Your task to perform on an android device: set the stopwatch Image 0: 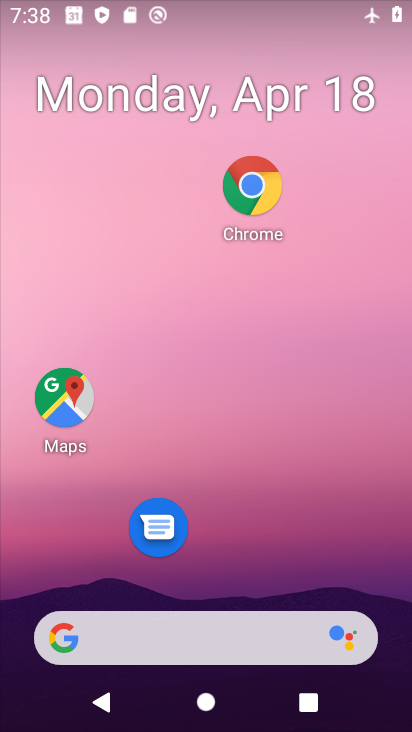
Step 0: click (203, 196)
Your task to perform on an android device: set the stopwatch Image 1: 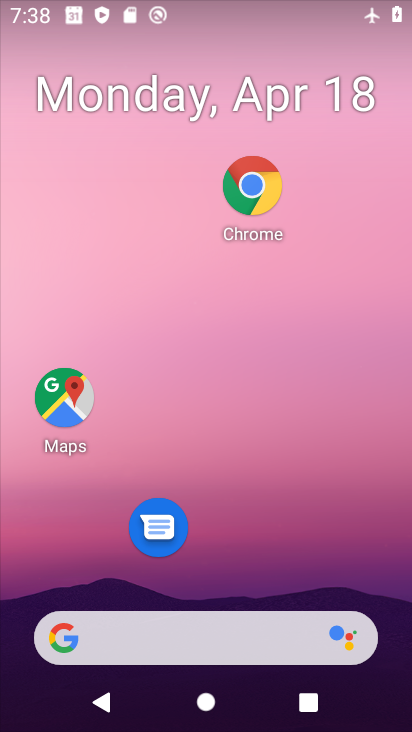
Step 1: drag from (214, 522) to (259, 203)
Your task to perform on an android device: set the stopwatch Image 2: 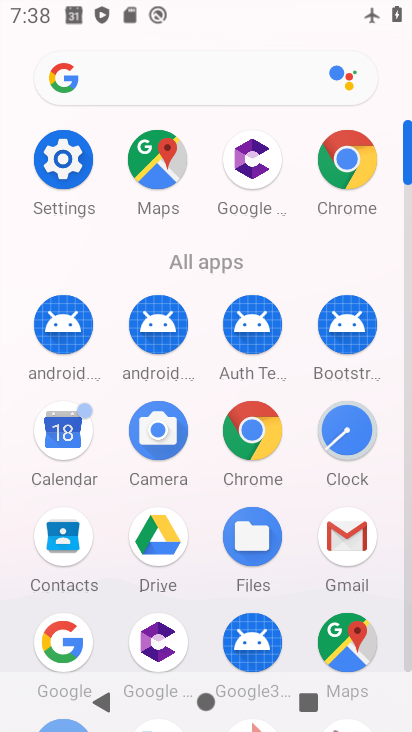
Step 2: click (357, 440)
Your task to perform on an android device: set the stopwatch Image 3: 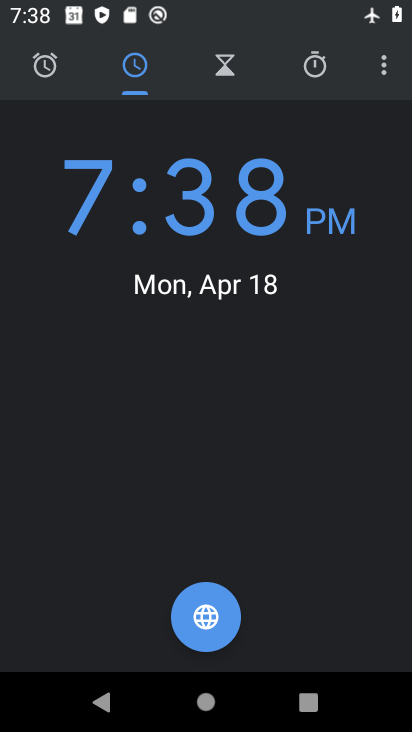
Step 3: click (302, 67)
Your task to perform on an android device: set the stopwatch Image 4: 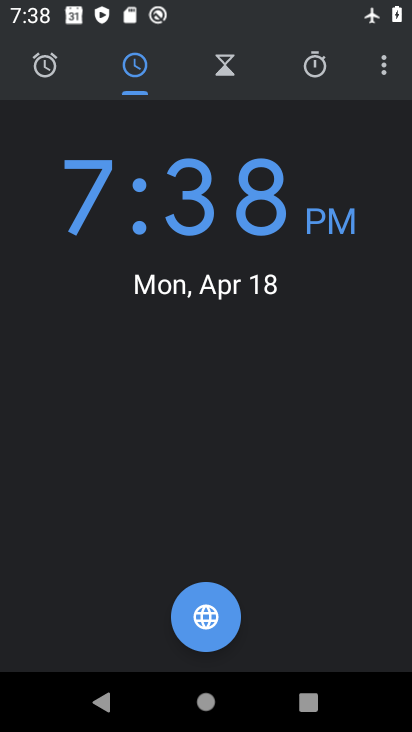
Step 4: click (316, 70)
Your task to perform on an android device: set the stopwatch Image 5: 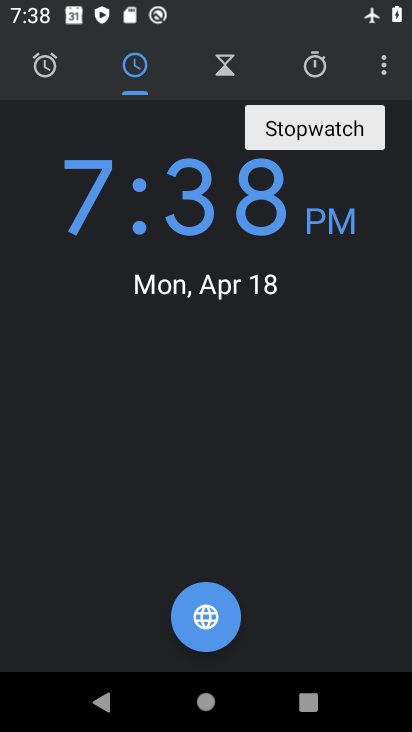
Step 5: click (316, 68)
Your task to perform on an android device: set the stopwatch Image 6: 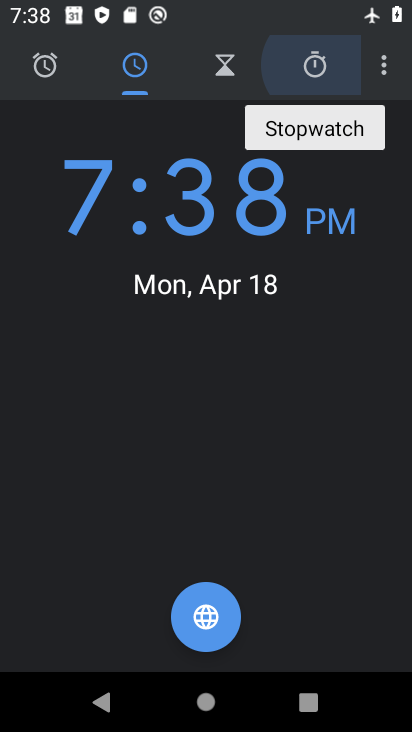
Step 6: click (316, 68)
Your task to perform on an android device: set the stopwatch Image 7: 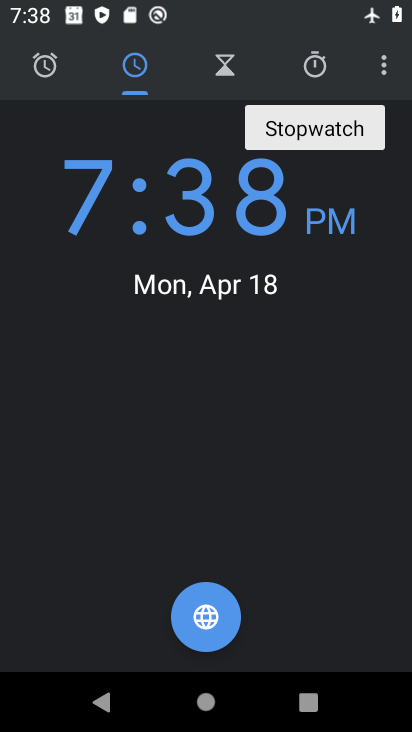
Step 7: click (225, 62)
Your task to perform on an android device: set the stopwatch Image 8: 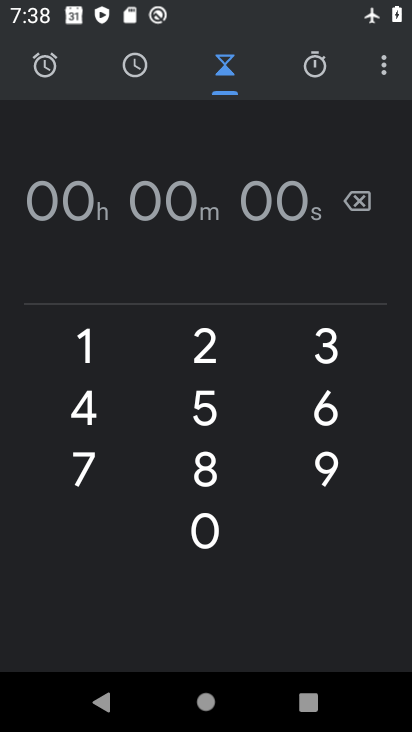
Step 8: click (299, 65)
Your task to perform on an android device: set the stopwatch Image 9: 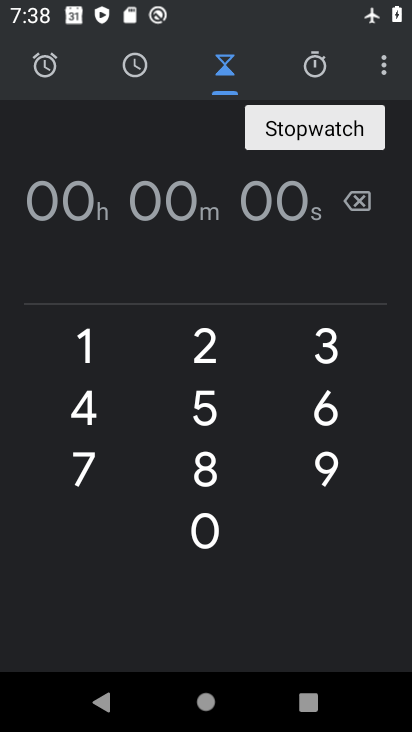
Step 9: click (310, 62)
Your task to perform on an android device: set the stopwatch Image 10: 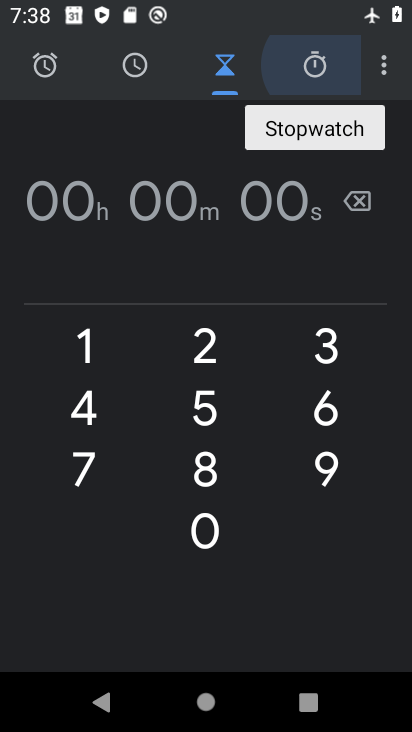
Step 10: click (314, 62)
Your task to perform on an android device: set the stopwatch Image 11: 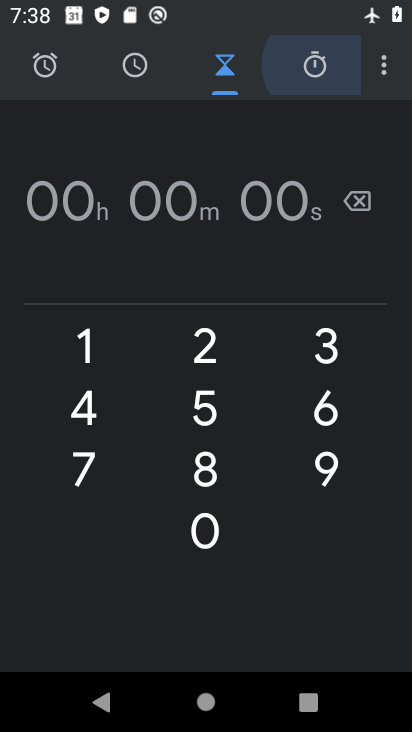
Step 11: click (315, 62)
Your task to perform on an android device: set the stopwatch Image 12: 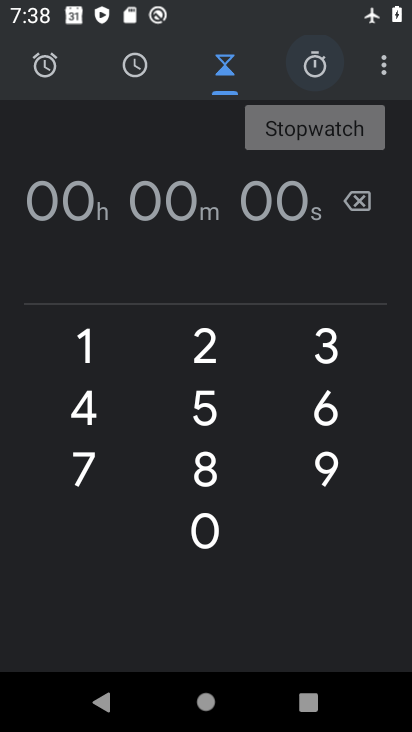
Step 12: click (316, 63)
Your task to perform on an android device: set the stopwatch Image 13: 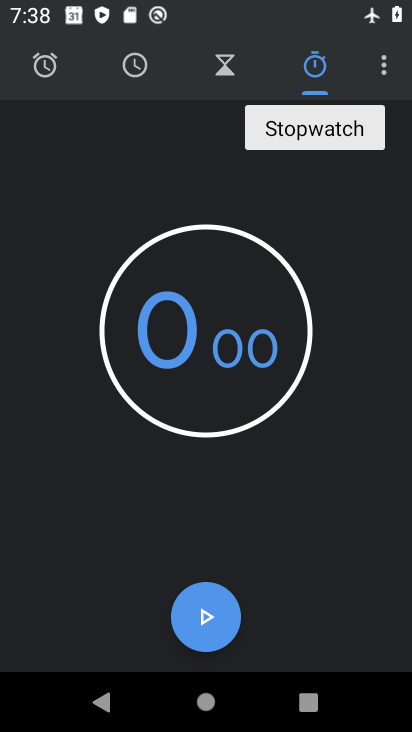
Step 13: click (241, 610)
Your task to perform on an android device: set the stopwatch Image 14: 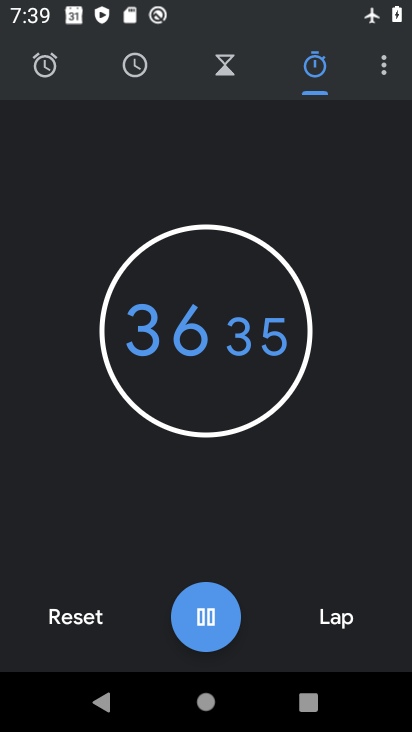
Step 14: click (199, 607)
Your task to perform on an android device: set the stopwatch Image 15: 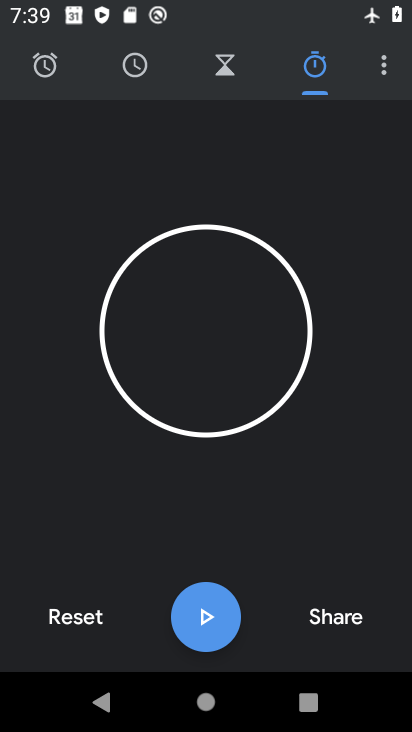
Step 15: task complete